Your task to perform on an android device: What's the weather going to be this weekend? Image 0: 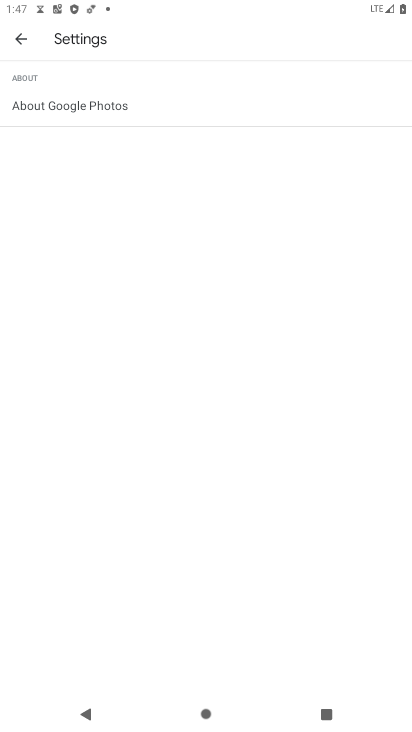
Step 0: click (250, 621)
Your task to perform on an android device: What's the weather going to be this weekend? Image 1: 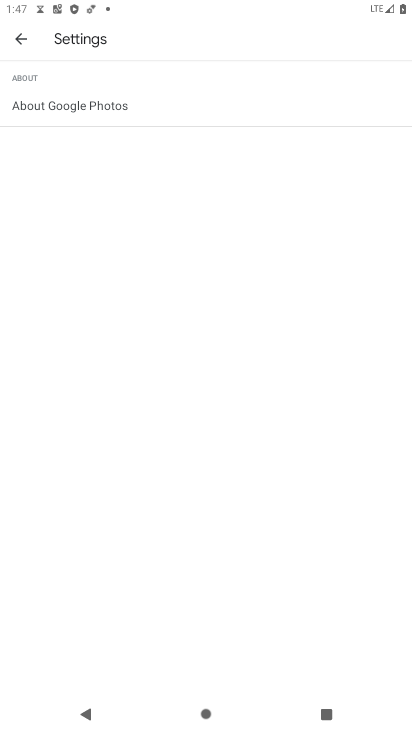
Step 1: press home button
Your task to perform on an android device: What's the weather going to be this weekend? Image 2: 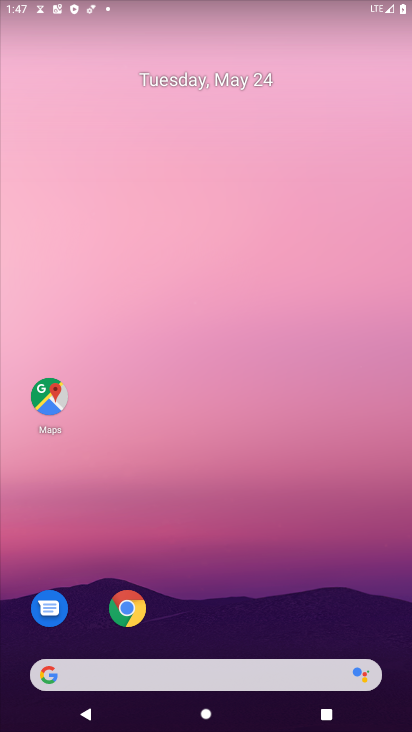
Step 2: drag from (244, 644) to (214, 260)
Your task to perform on an android device: What's the weather going to be this weekend? Image 3: 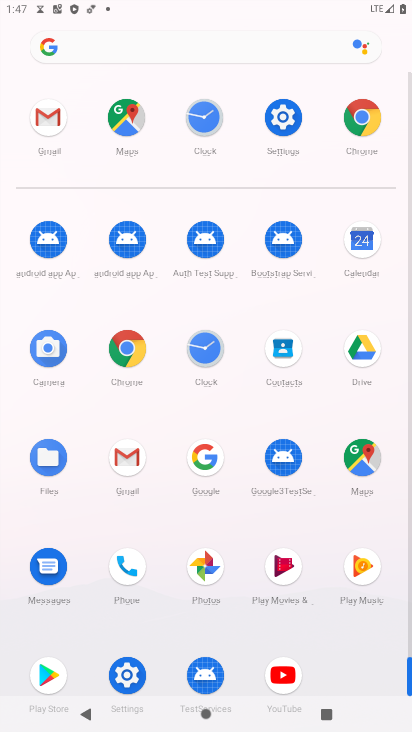
Step 3: click (349, 125)
Your task to perform on an android device: What's the weather going to be this weekend? Image 4: 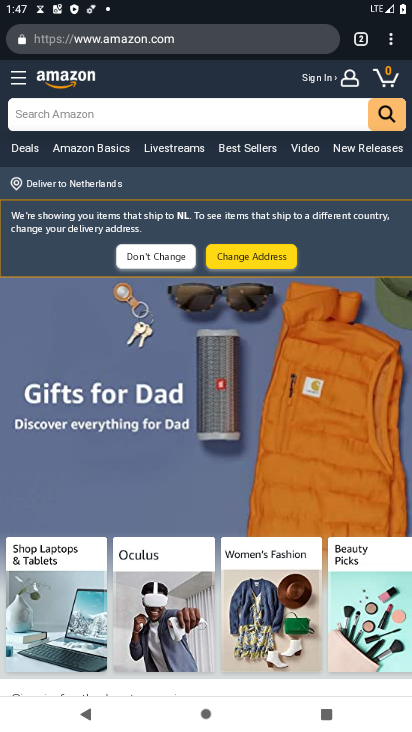
Step 4: drag from (279, 706) to (350, 728)
Your task to perform on an android device: What's the weather going to be this weekend? Image 5: 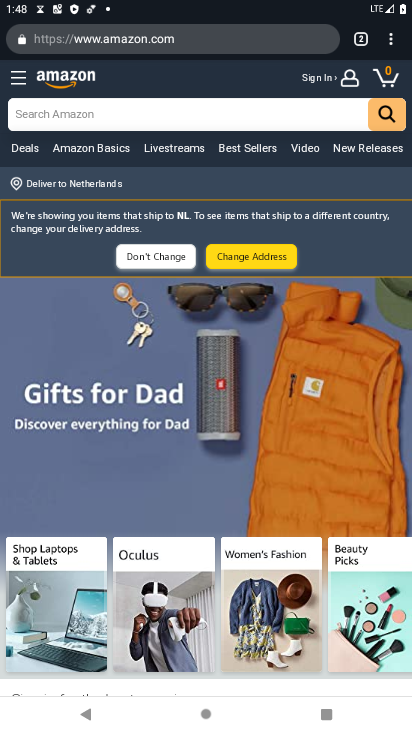
Step 5: type "What's the weather going to be this weekend?"
Your task to perform on an android device: What's the weather going to be this weekend? Image 6: 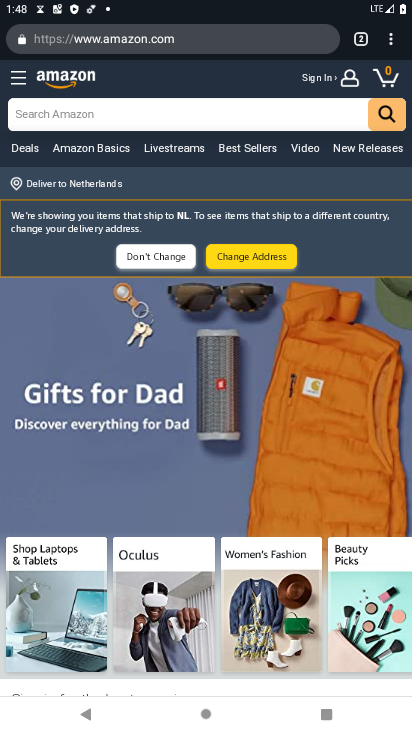
Step 6: drag from (350, 728) to (368, 507)
Your task to perform on an android device: What's the weather going to be this weekend? Image 7: 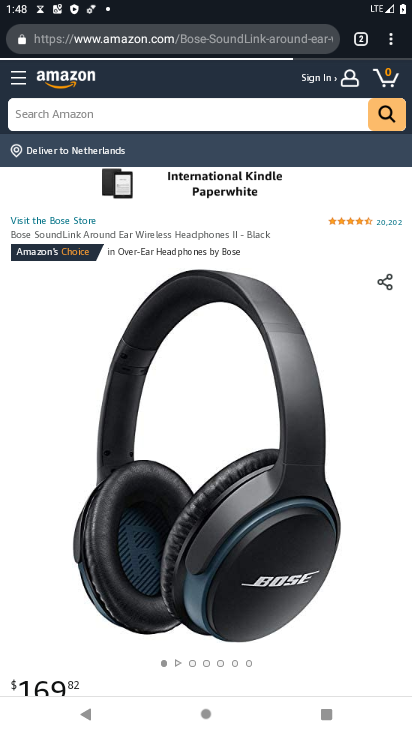
Step 7: click (229, 39)
Your task to perform on an android device: What's the weather going to be this weekend? Image 8: 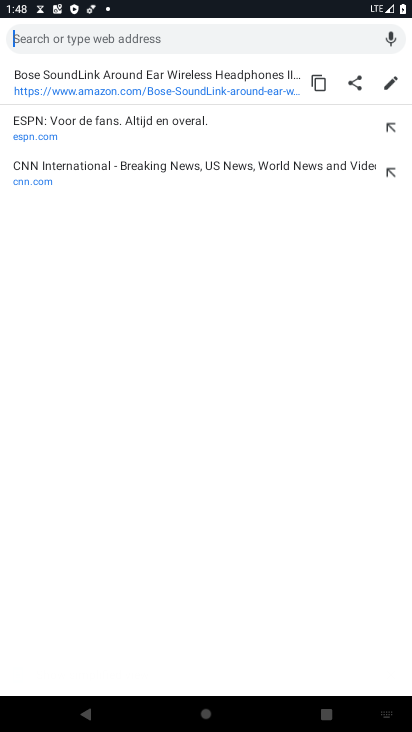
Step 8: type "What's the weather going to be this weekend?"
Your task to perform on an android device: What's the weather going to be this weekend? Image 9: 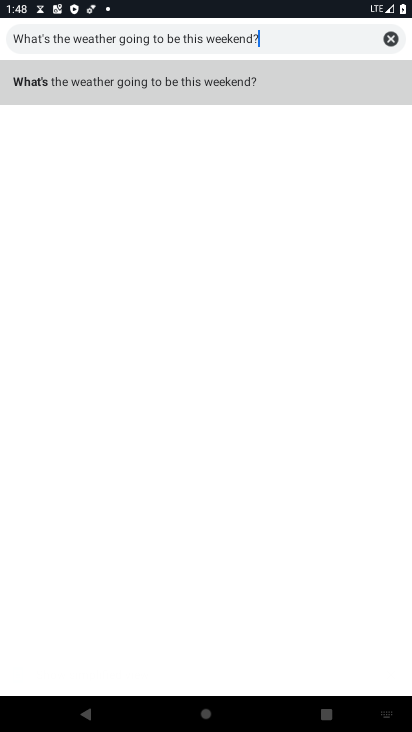
Step 9: click (221, 78)
Your task to perform on an android device: What's the weather going to be this weekend? Image 10: 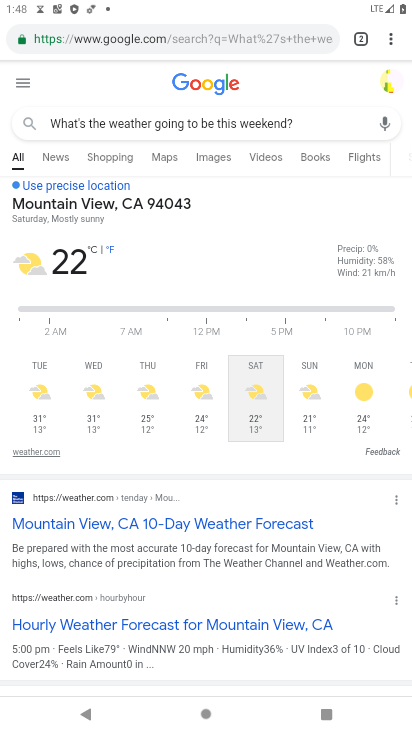
Step 10: task complete